Your task to perform on an android device: clear history in the chrome app Image 0: 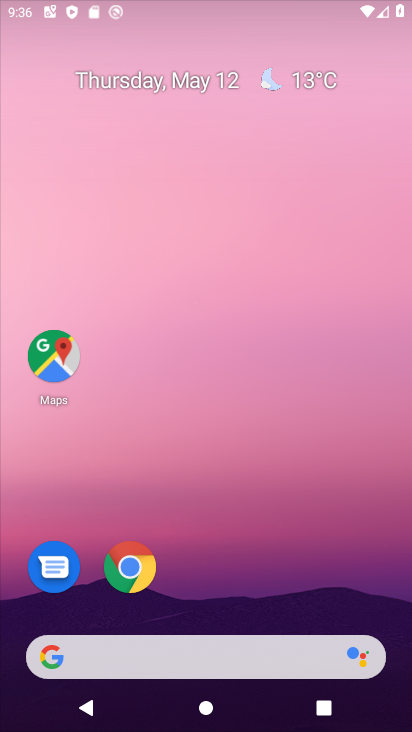
Step 0: drag from (315, 506) to (302, 53)
Your task to perform on an android device: clear history in the chrome app Image 1: 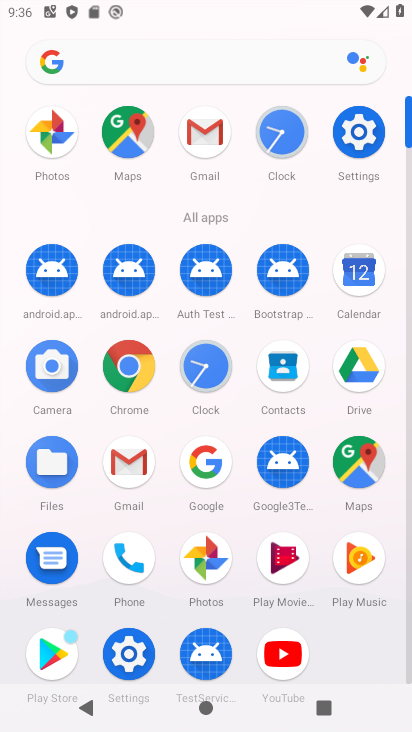
Step 1: click (128, 383)
Your task to perform on an android device: clear history in the chrome app Image 2: 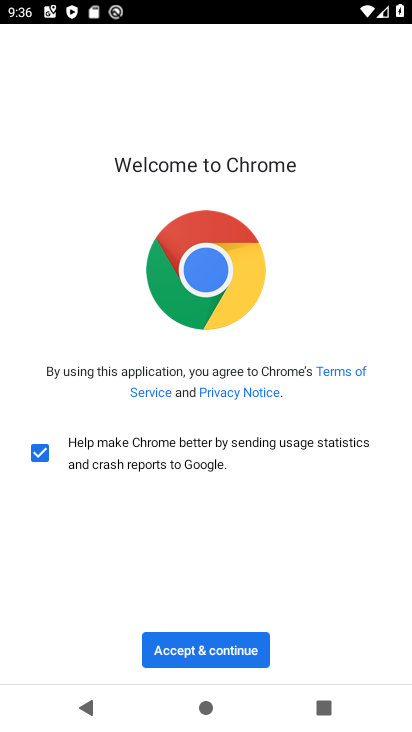
Step 2: click (239, 640)
Your task to perform on an android device: clear history in the chrome app Image 3: 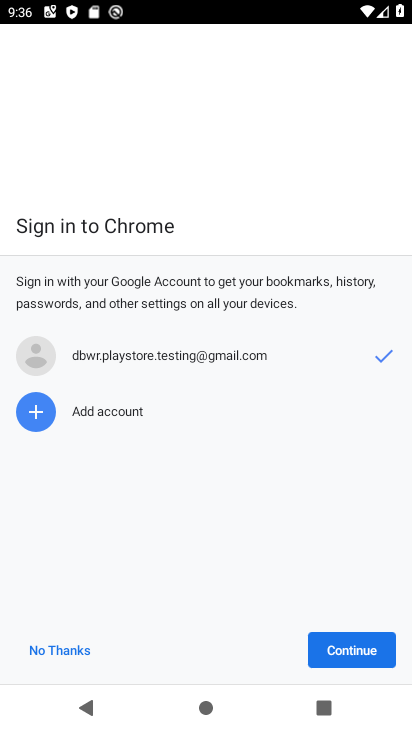
Step 3: click (362, 663)
Your task to perform on an android device: clear history in the chrome app Image 4: 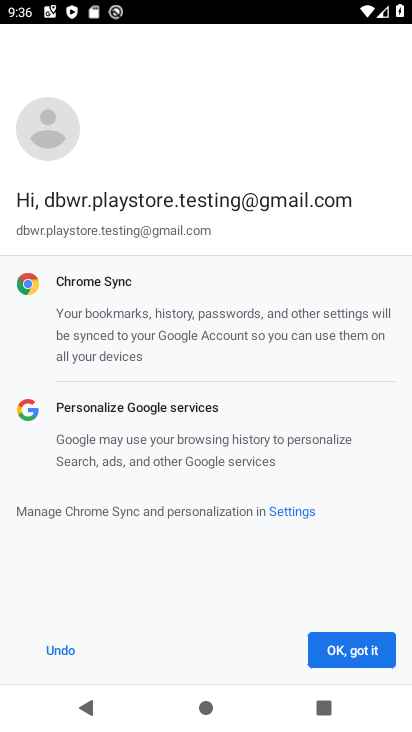
Step 4: click (364, 652)
Your task to perform on an android device: clear history in the chrome app Image 5: 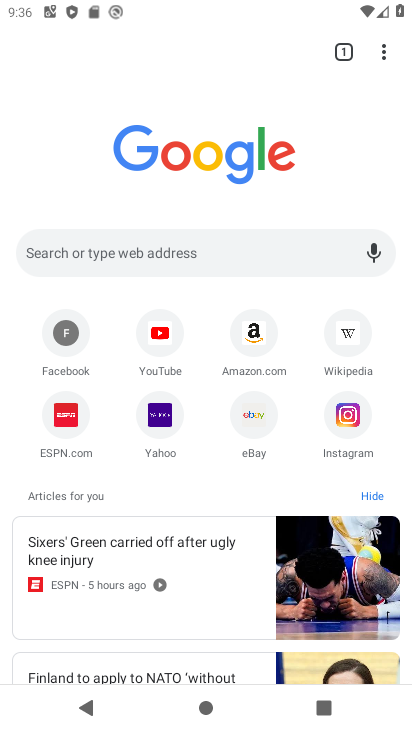
Step 5: drag from (381, 60) to (287, 293)
Your task to perform on an android device: clear history in the chrome app Image 6: 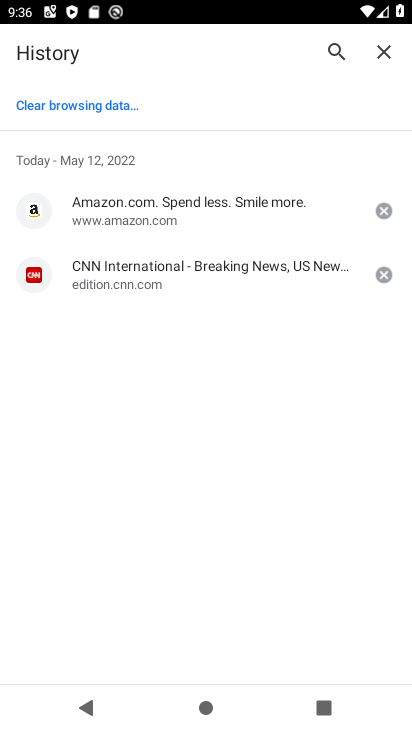
Step 6: click (85, 104)
Your task to perform on an android device: clear history in the chrome app Image 7: 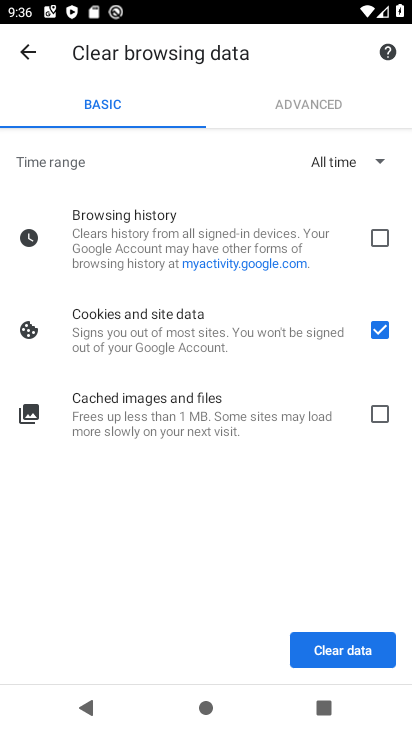
Step 7: click (381, 329)
Your task to perform on an android device: clear history in the chrome app Image 8: 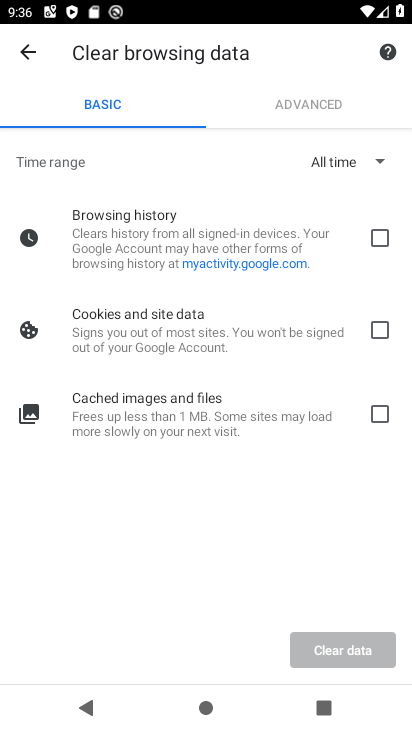
Step 8: click (384, 233)
Your task to perform on an android device: clear history in the chrome app Image 9: 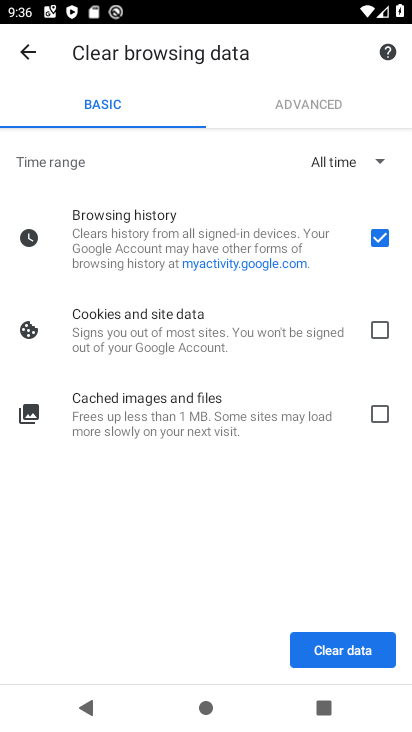
Step 9: click (365, 662)
Your task to perform on an android device: clear history in the chrome app Image 10: 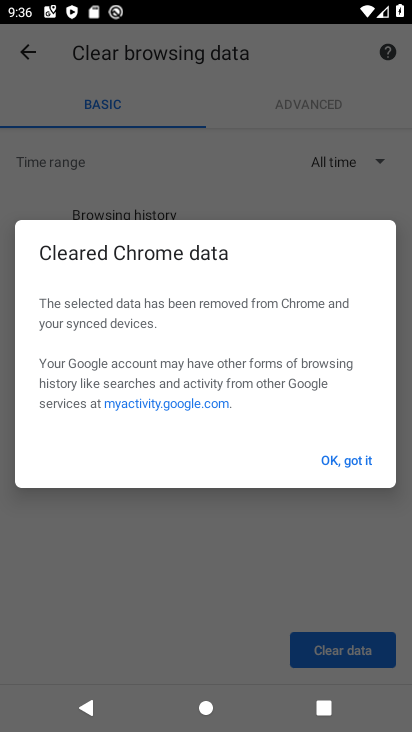
Step 10: click (338, 470)
Your task to perform on an android device: clear history in the chrome app Image 11: 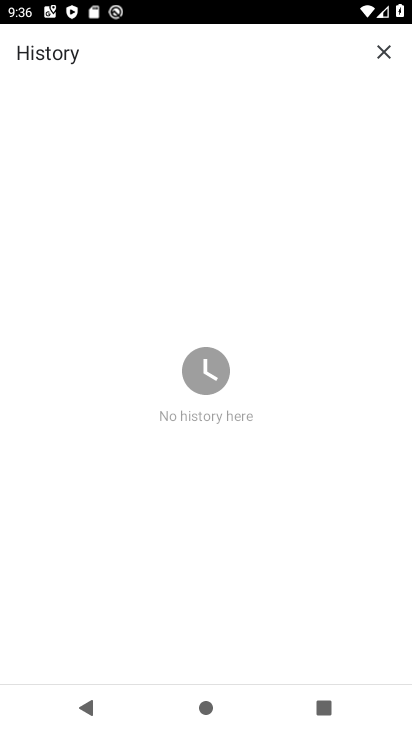
Step 11: task complete